Your task to perform on an android device: open wifi settings Image 0: 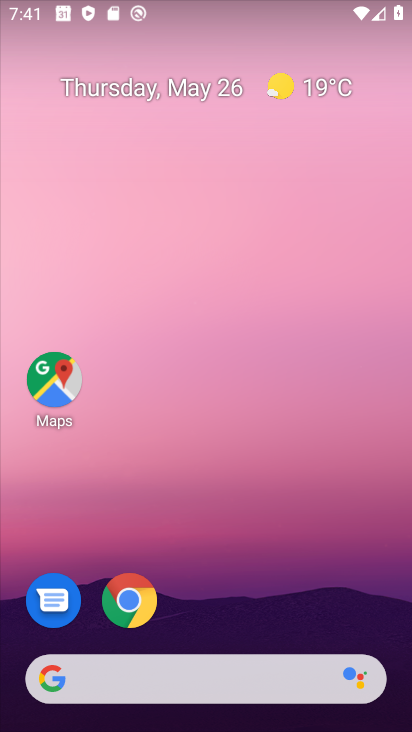
Step 0: drag from (302, 708) to (273, 89)
Your task to perform on an android device: open wifi settings Image 1: 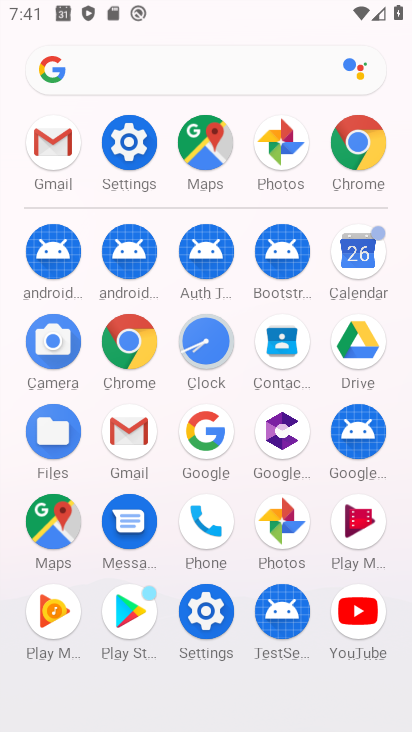
Step 1: click (135, 142)
Your task to perform on an android device: open wifi settings Image 2: 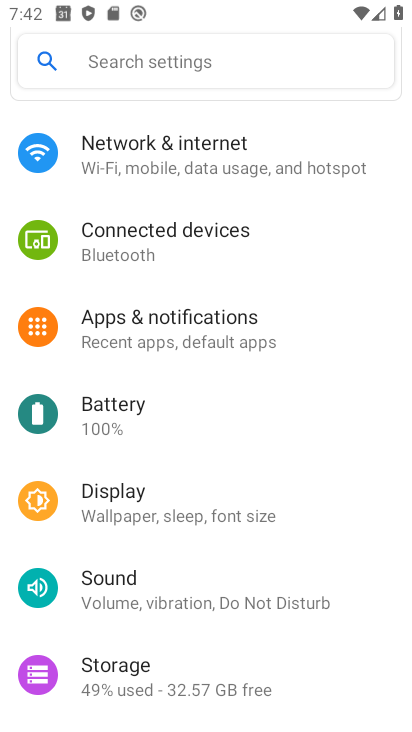
Step 2: click (117, 161)
Your task to perform on an android device: open wifi settings Image 3: 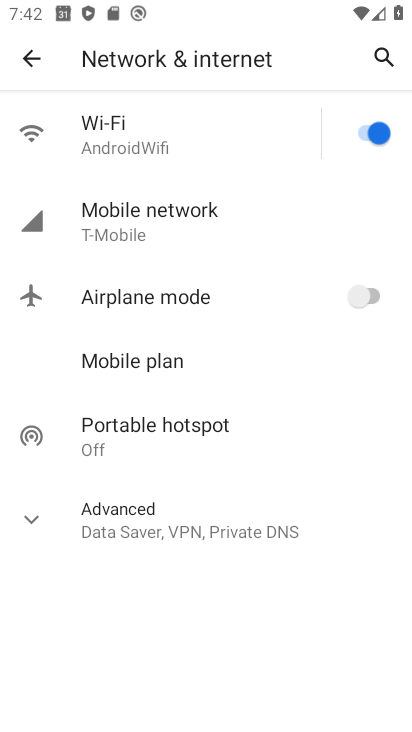
Step 3: click (204, 144)
Your task to perform on an android device: open wifi settings Image 4: 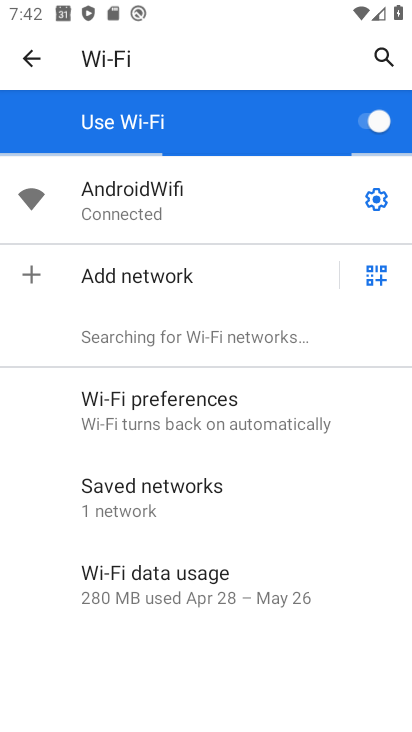
Step 4: task complete